Your task to perform on an android device: Is it going to rain this weekend? Image 0: 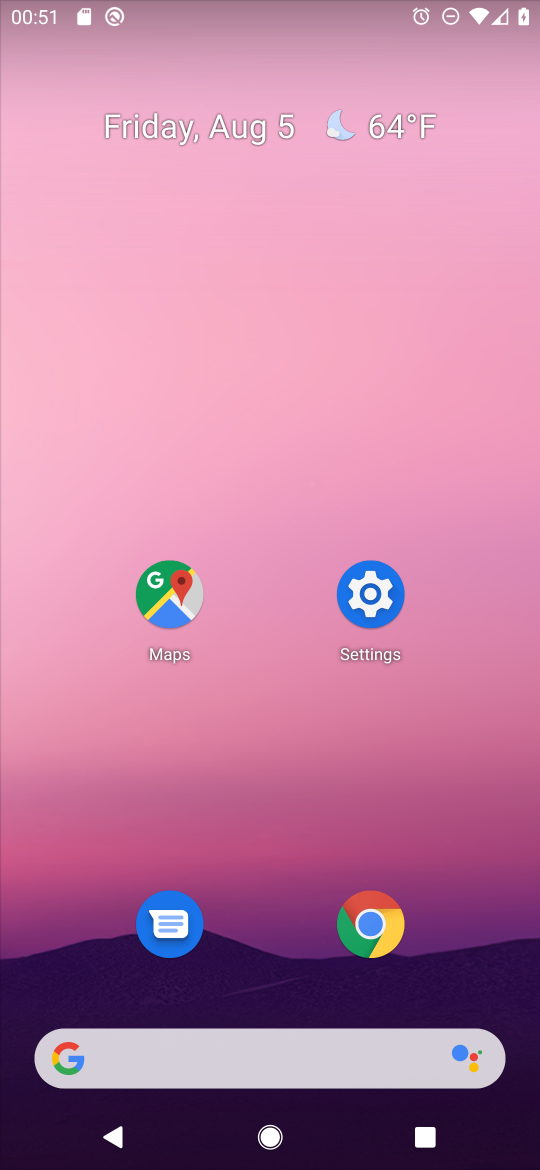
Step 0: click (183, 1061)
Your task to perform on an android device: Is it going to rain this weekend? Image 1: 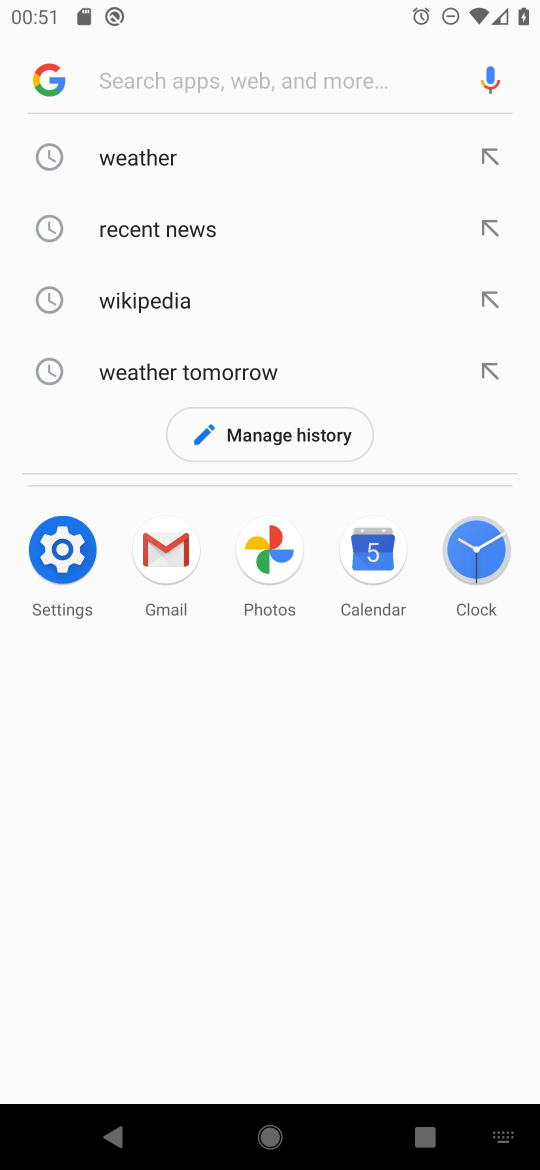
Step 1: click (141, 147)
Your task to perform on an android device: Is it going to rain this weekend? Image 2: 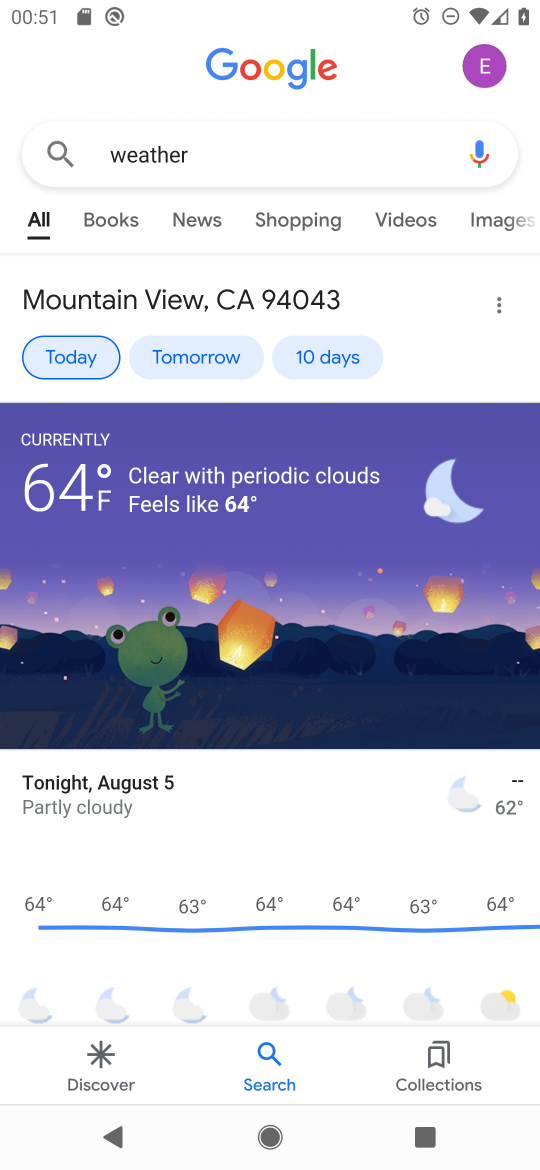
Step 2: click (326, 363)
Your task to perform on an android device: Is it going to rain this weekend? Image 3: 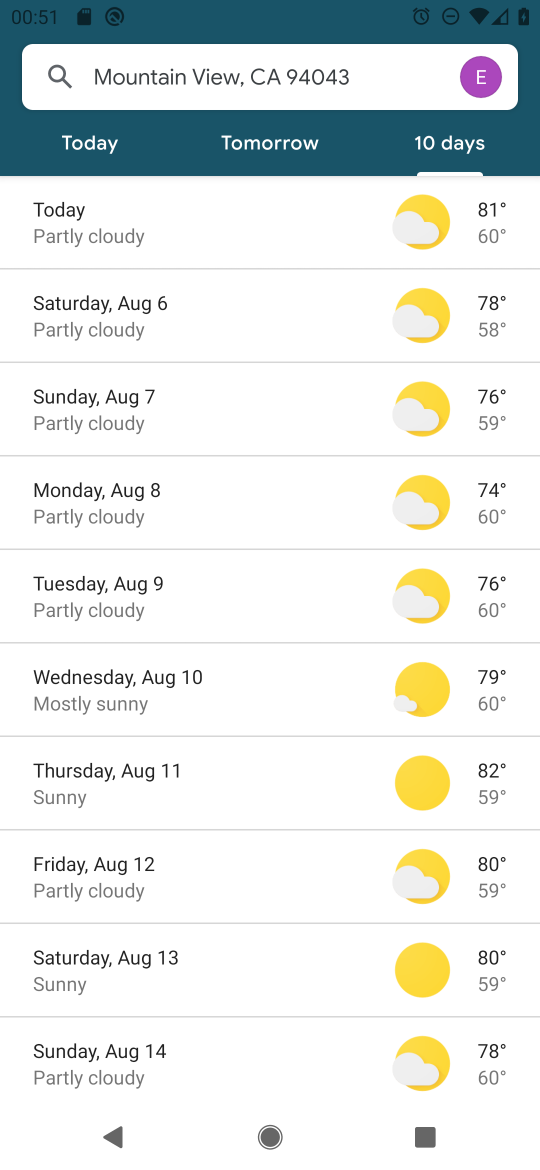
Step 3: click (105, 337)
Your task to perform on an android device: Is it going to rain this weekend? Image 4: 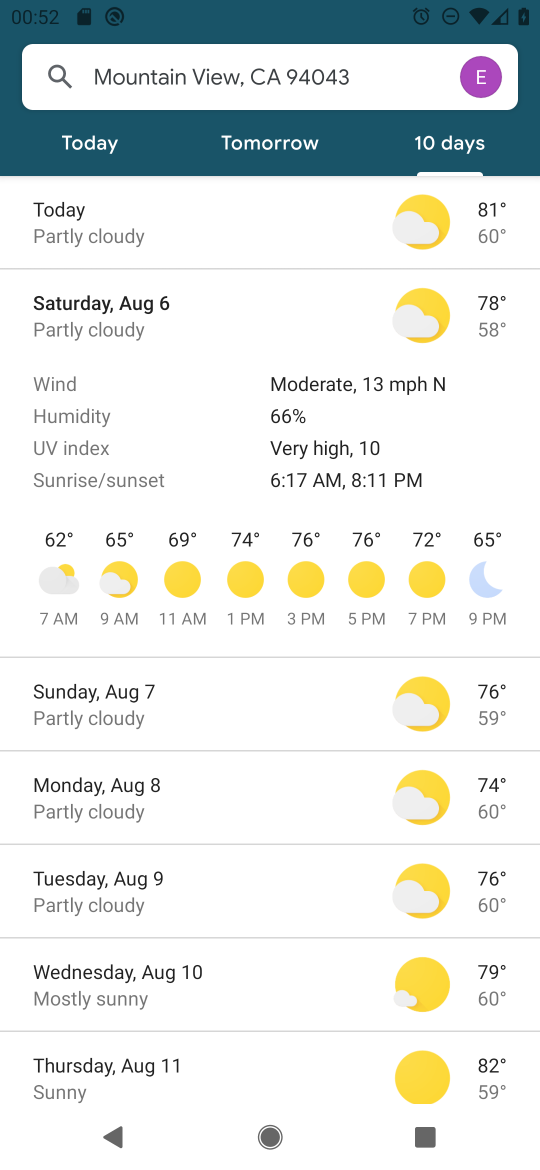
Step 4: task complete